Your task to perform on an android device: turn off translation in the chrome app Image 0: 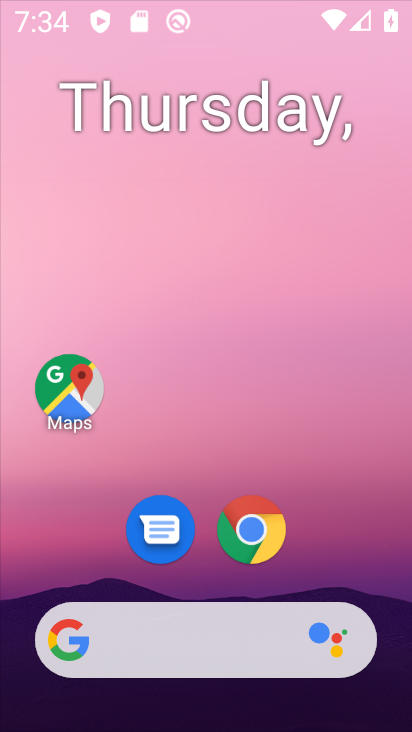
Step 0: press home button
Your task to perform on an android device: turn off translation in the chrome app Image 1: 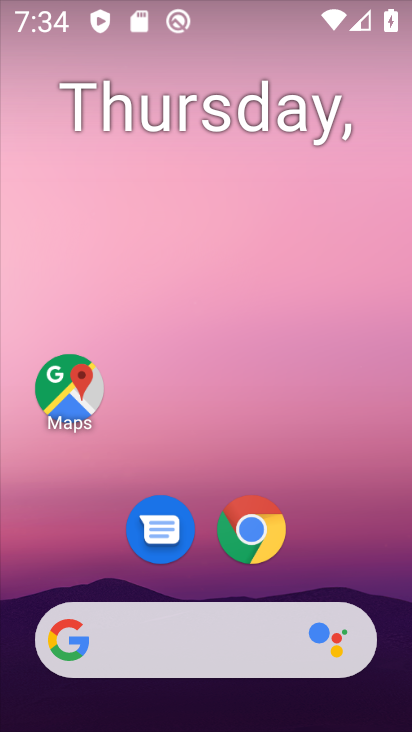
Step 1: click (246, 525)
Your task to perform on an android device: turn off translation in the chrome app Image 2: 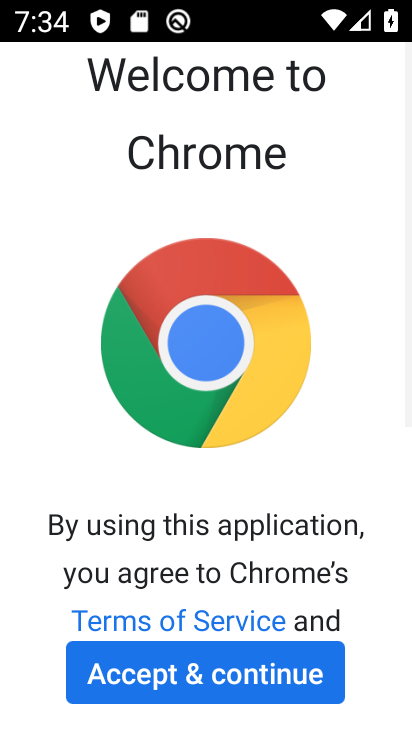
Step 2: click (233, 684)
Your task to perform on an android device: turn off translation in the chrome app Image 3: 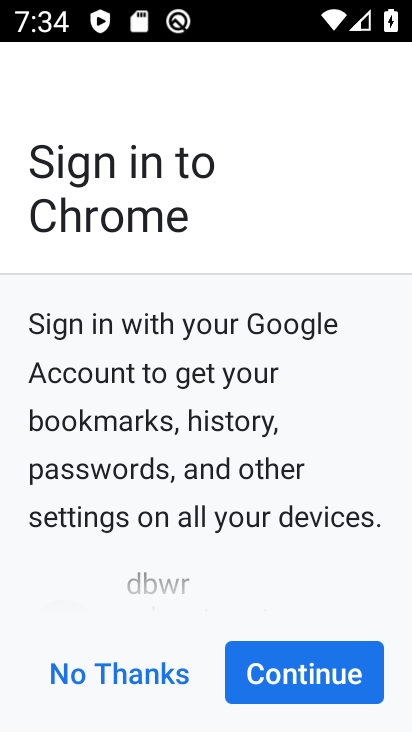
Step 3: click (247, 673)
Your task to perform on an android device: turn off translation in the chrome app Image 4: 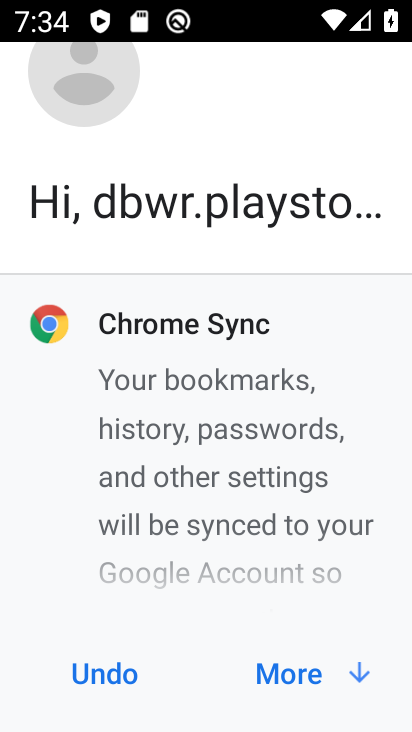
Step 4: click (282, 667)
Your task to perform on an android device: turn off translation in the chrome app Image 5: 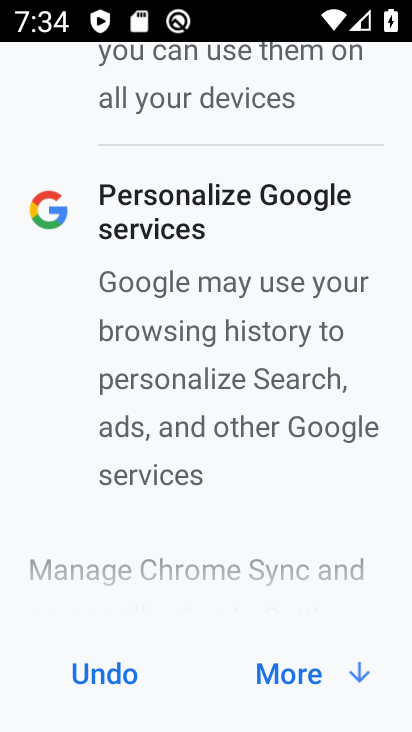
Step 5: click (282, 667)
Your task to perform on an android device: turn off translation in the chrome app Image 6: 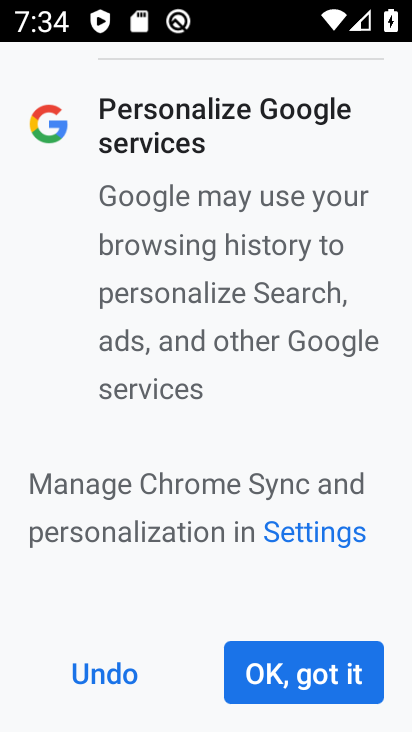
Step 6: click (282, 681)
Your task to perform on an android device: turn off translation in the chrome app Image 7: 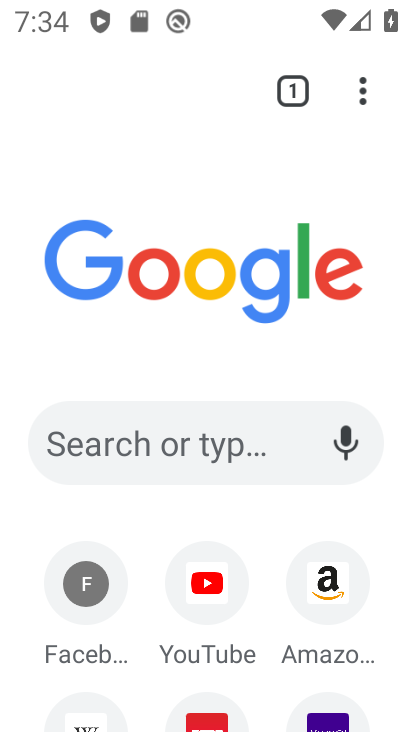
Step 7: click (362, 82)
Your task to perform on an android device: turn off translation in the chrome app Image 8: 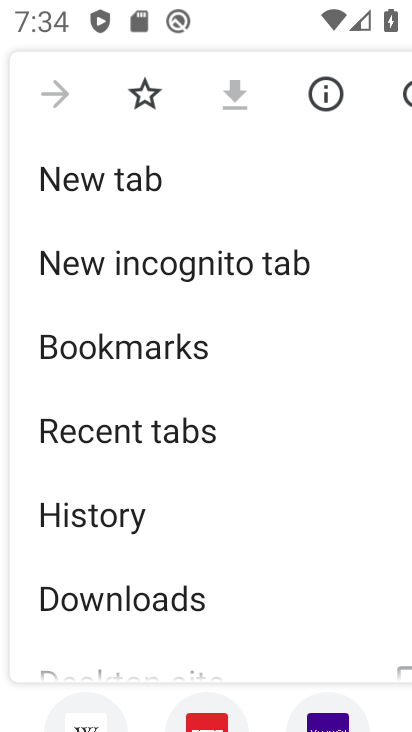
Step 8: drag from (313, 640) to (278, 250)
Your task to perform on an android device: turn off translation in the chrome app Image 9: 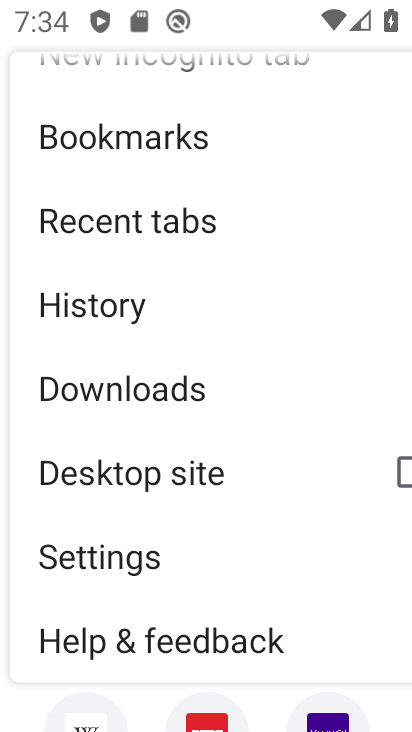
Step 9: click (93, 562)
Your task to perform on an android device: turn off translation in the chrome app Image 10: 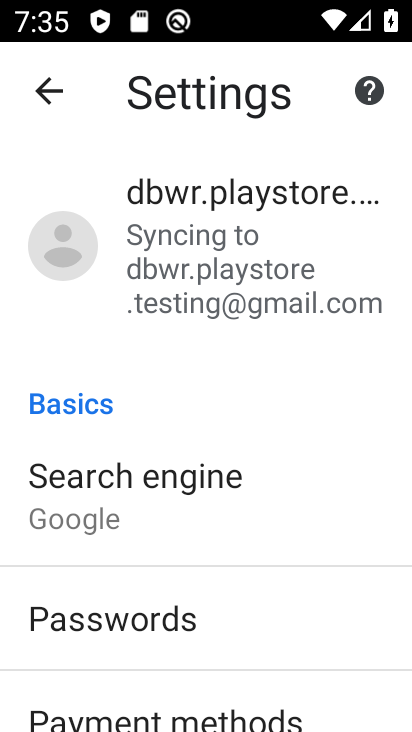
Step 10: drag from (327, 710) to (300, 309)
Your task to perform on an android device: turn off translation in the chrome app Image 11: 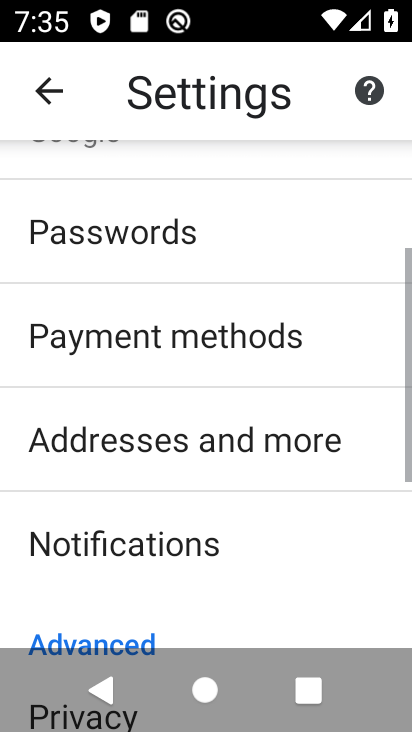
Step 11: drag from (263, 626) to (206, 302)
Your task to perform on an android device: turn off translation in the chrome app Image 12: 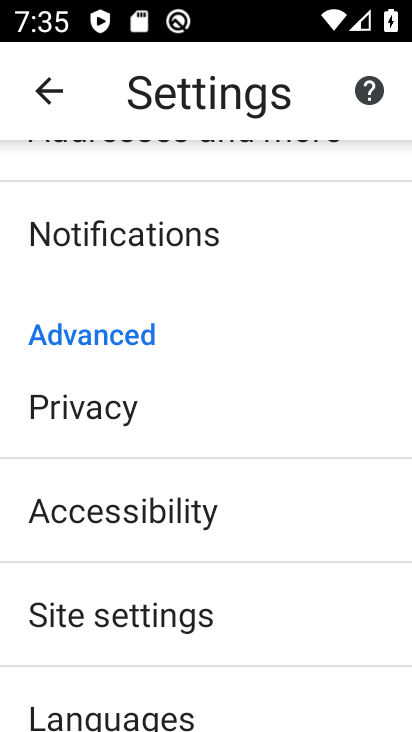
Step 12: click (114, 719)
Your task to perform on an android device: turn off translation in the chrome app Image 13: 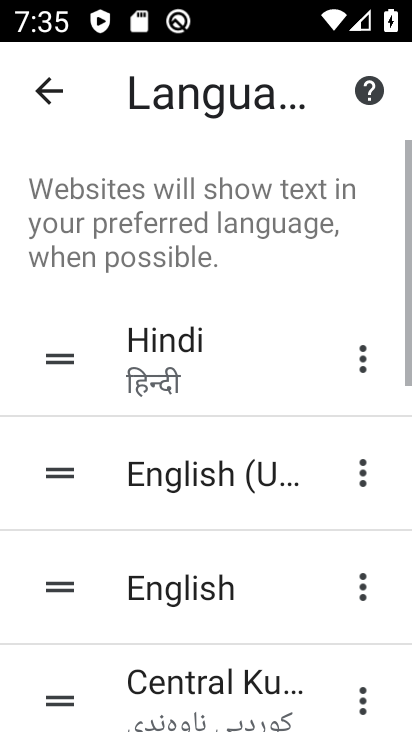
Step 13: drag from (309, 685) to (283, 297)
Your task to perform on an android device: turn off translation in the chrome app Image 14: 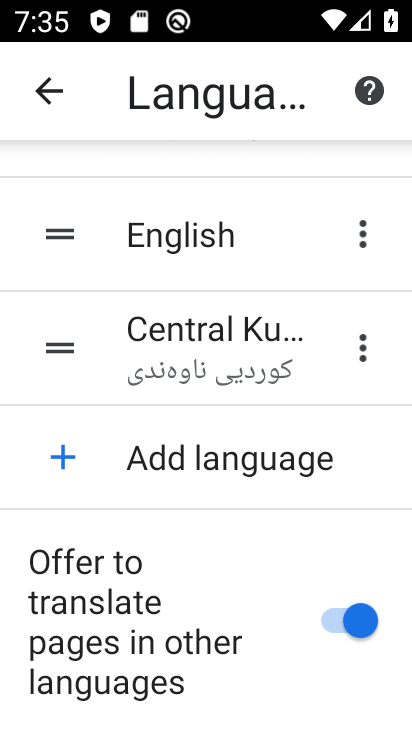
Step 14: click (320, 623)
Your task to perform on an android device: turn off translation in the chrome app Image 15: 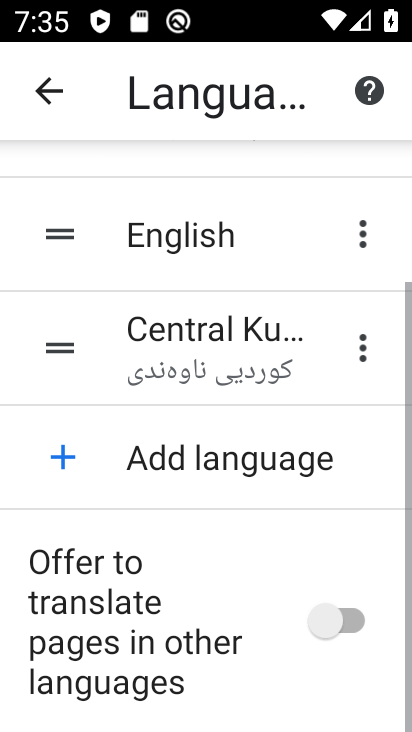
Step 15: task complete